Your task to perform on an android device: Go to Google maps Image 0: 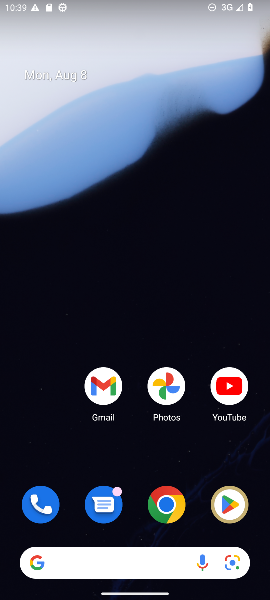
Step 0: drag from (122, 451) to (135, 1)
Your task to perform on an android device: Go to Google maps Image 1: 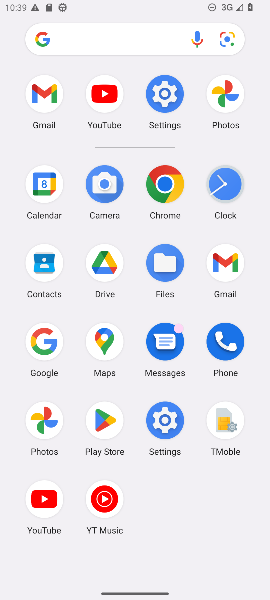
Step 1: click (112, 354)
Your task to perform on an android device: Go to Google maps Image 2: 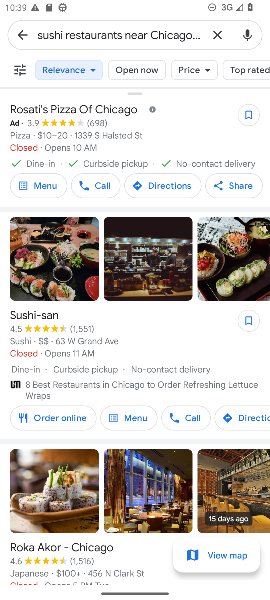
Step 2: click (21, 32)
Your task to perform on an android device: Go to Google maps Image 3: 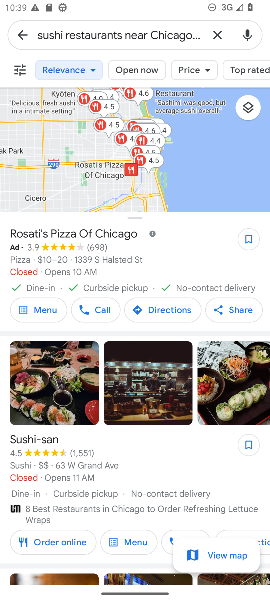
Step 3: click (23, 36)
Your task to perform on an android device: Go to Google maps Image 4: 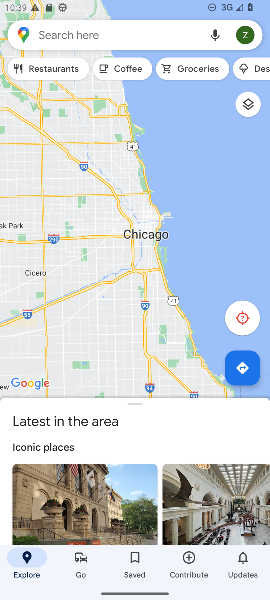
Step 4: task complete